Your task to perform on an android device: Open notification settings Image 0: 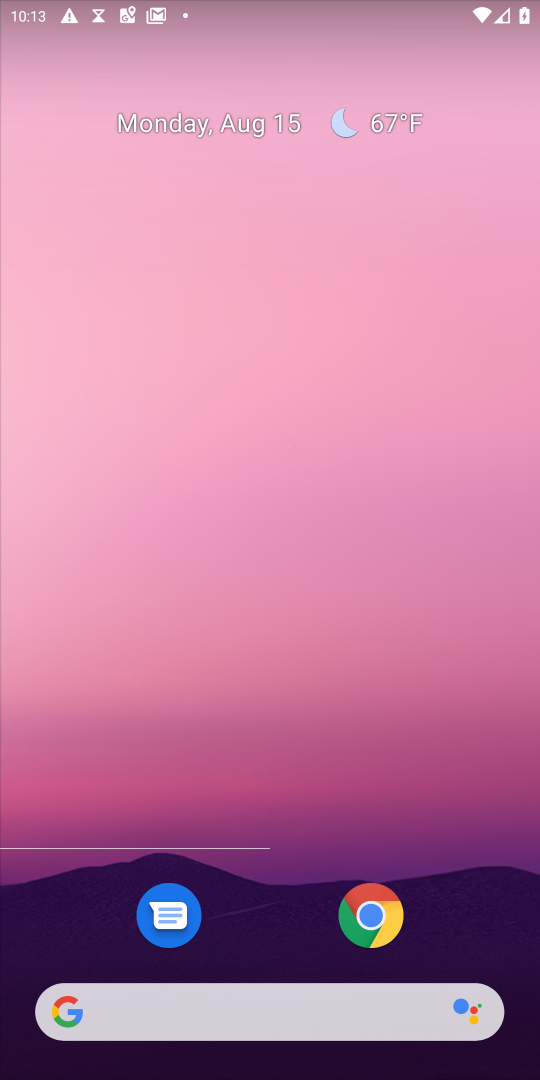
Step 0: press home button
Your task to perform on an android device: Open notification settings Image 1: 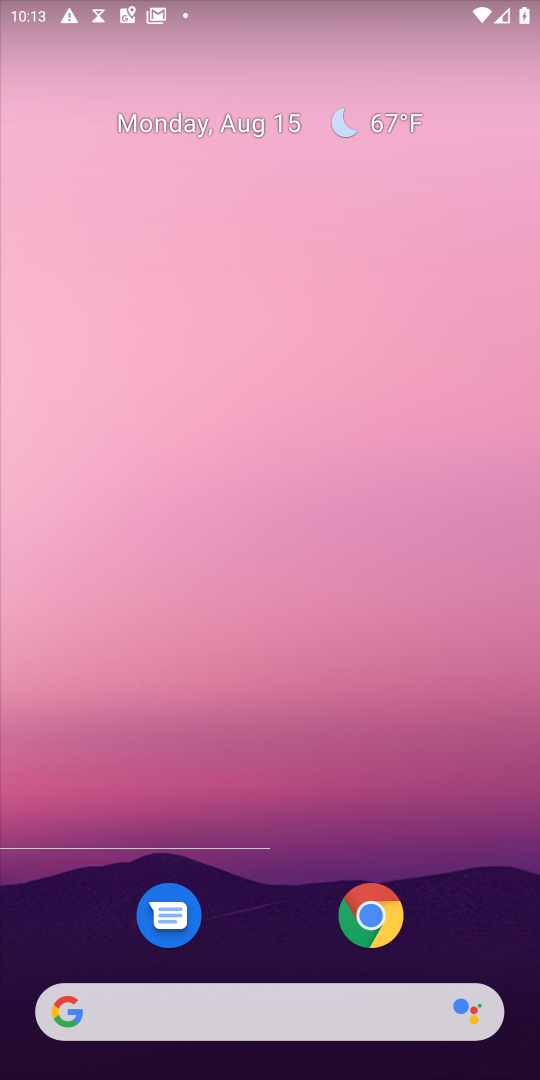
Step 1: drag from (286, 890) to (361, 266)
Your task to perform on an android device: Open notification settings Image 2: 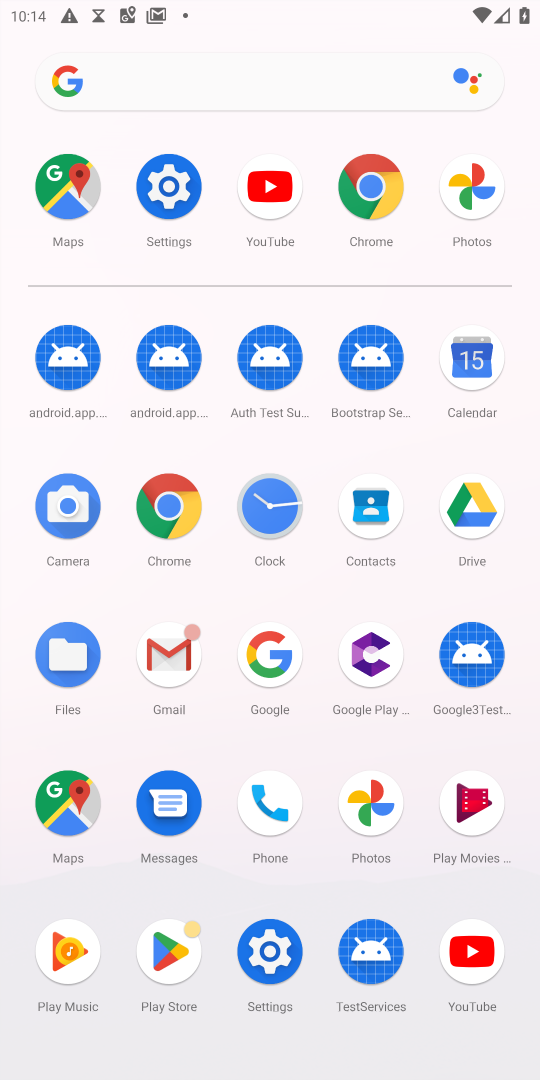
Step 2: click (181, 194)
Your task to perform on an android device: Open notification settings Image 3: 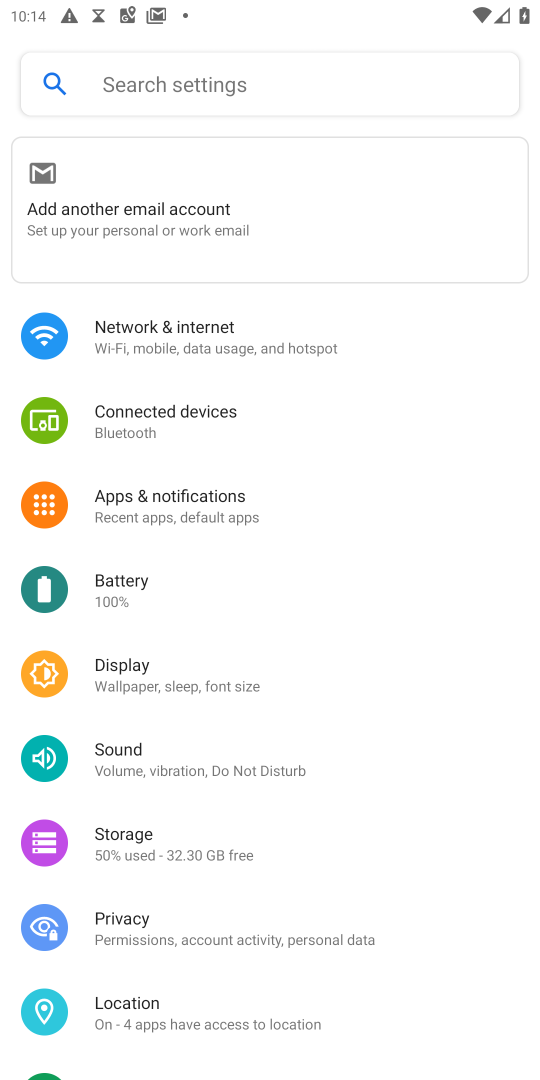
Step 3: click (121, 516)
Your task to perform on an android device: Open notification settings Image 4: 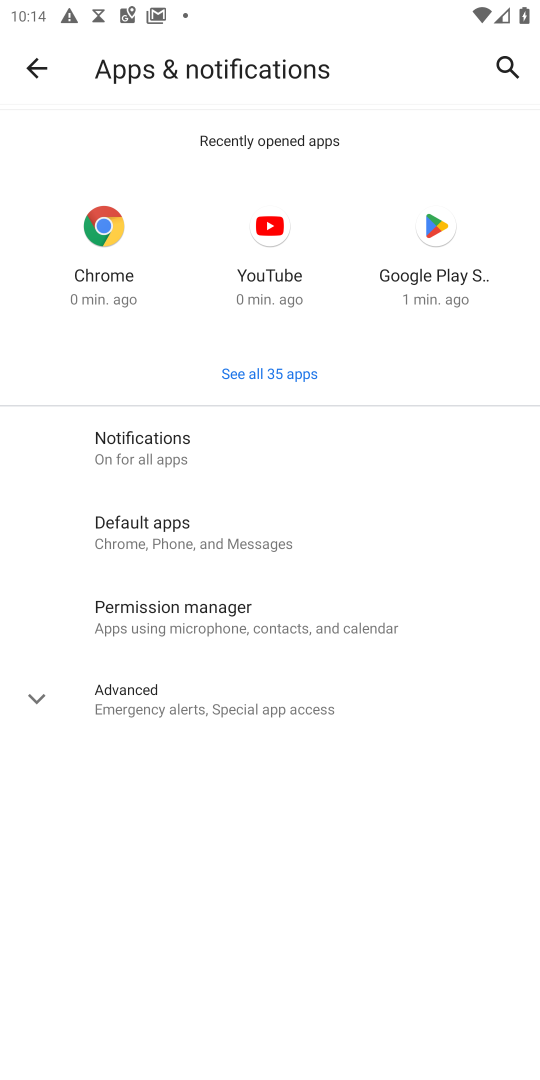
Step 4: click (148, 440)
Your task to perform on an android device: Open notification settings Image 5: 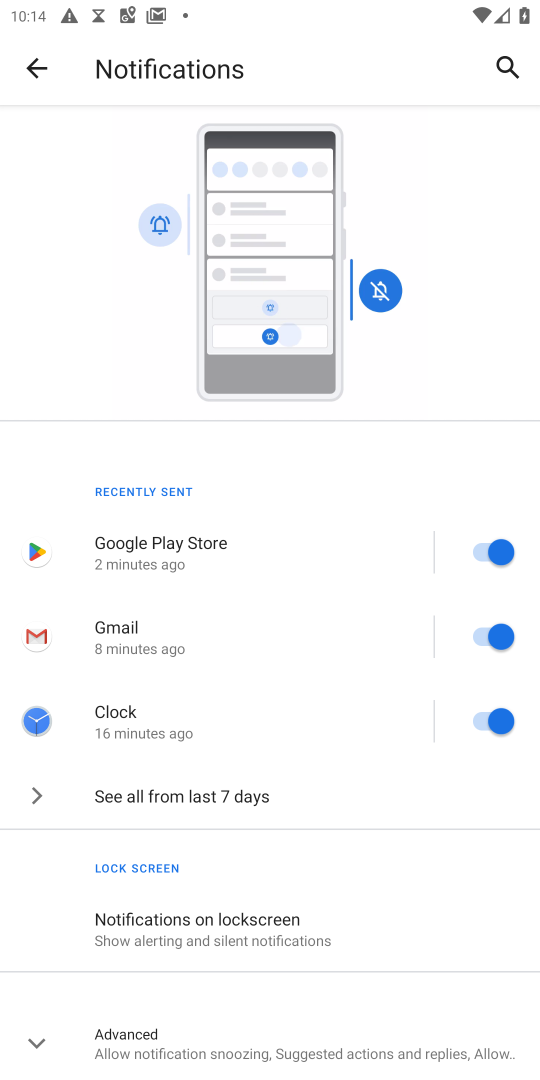
Step 5: task complete